Your task to perform on an android device: Play the last video I watched on Youtube Image 0: 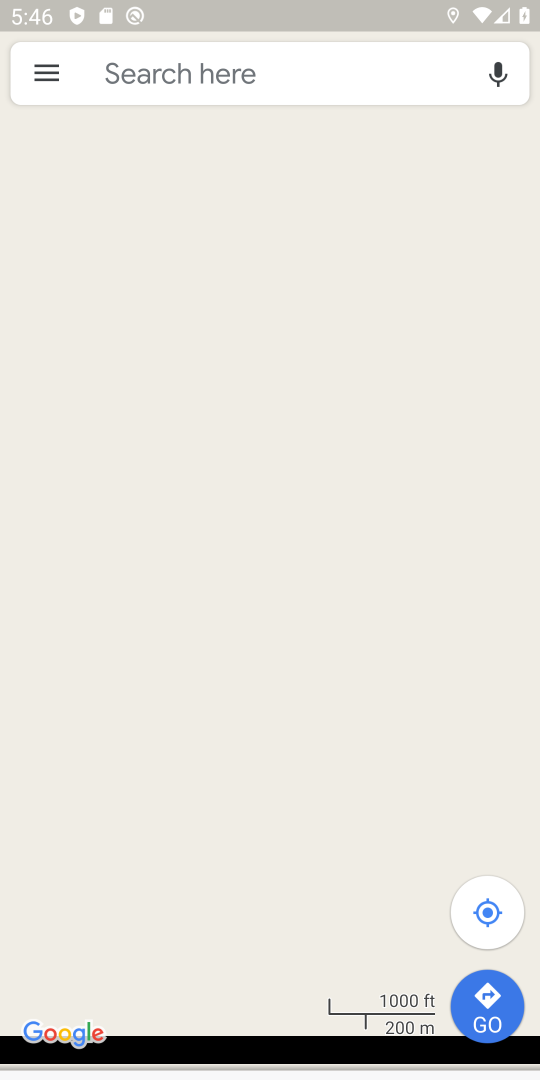
Step 0: press home button
Your task to perform on an android device: Play the last video I watched on Youtube Image 1: 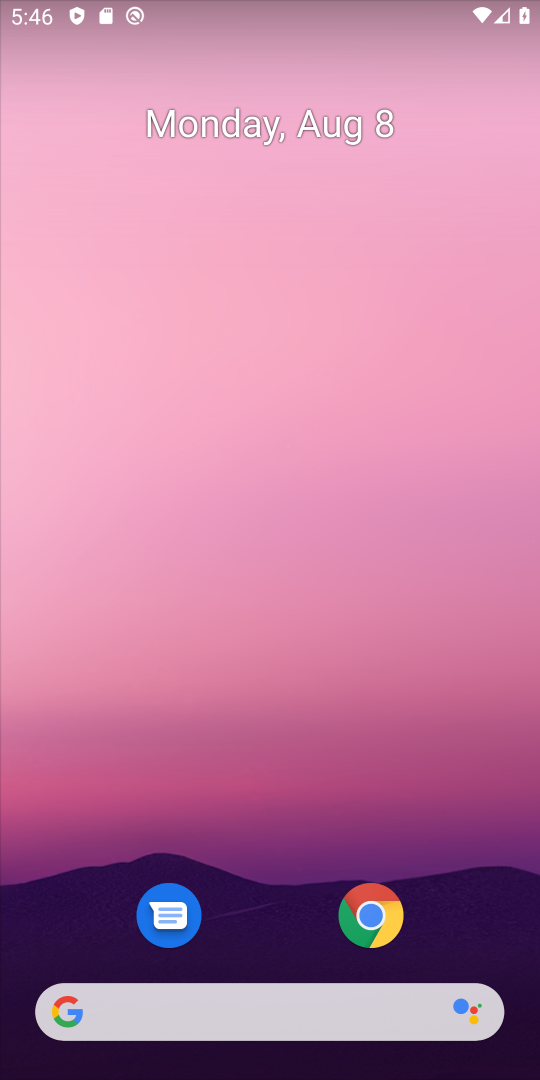
Step 1: drag from (265, 797) to (130, 173)
Your task to perform on an android device: Play the last video I watched on Youtube Image 2: 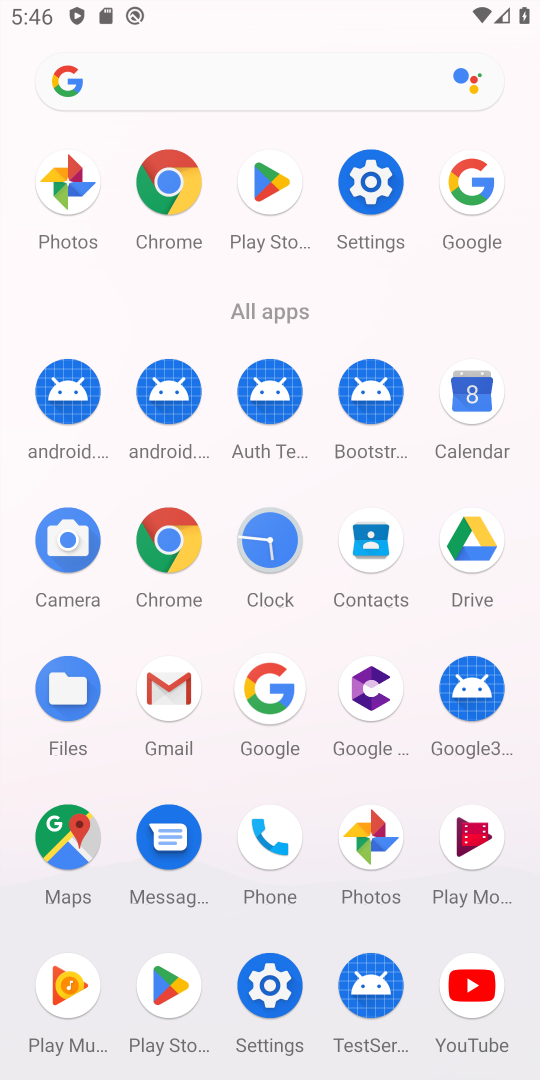
Step 2: click (471, 987)
Your task to perform on an android device: Play the last video I watched on Youtube Image 3: 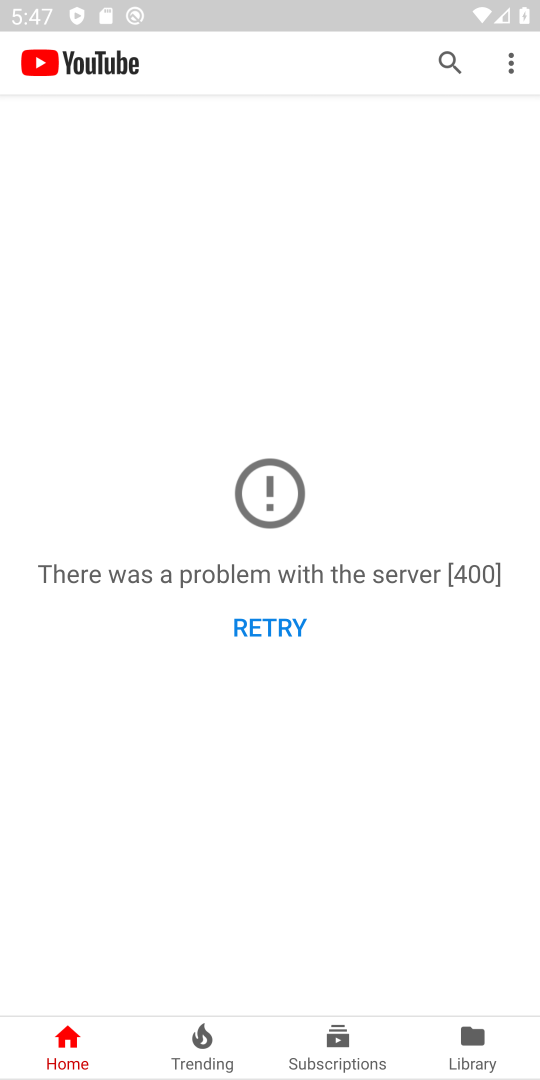
Step 3: click (270, 630)
Your task to perform on an android device: Play the last video I watched on Youtube Image 4: 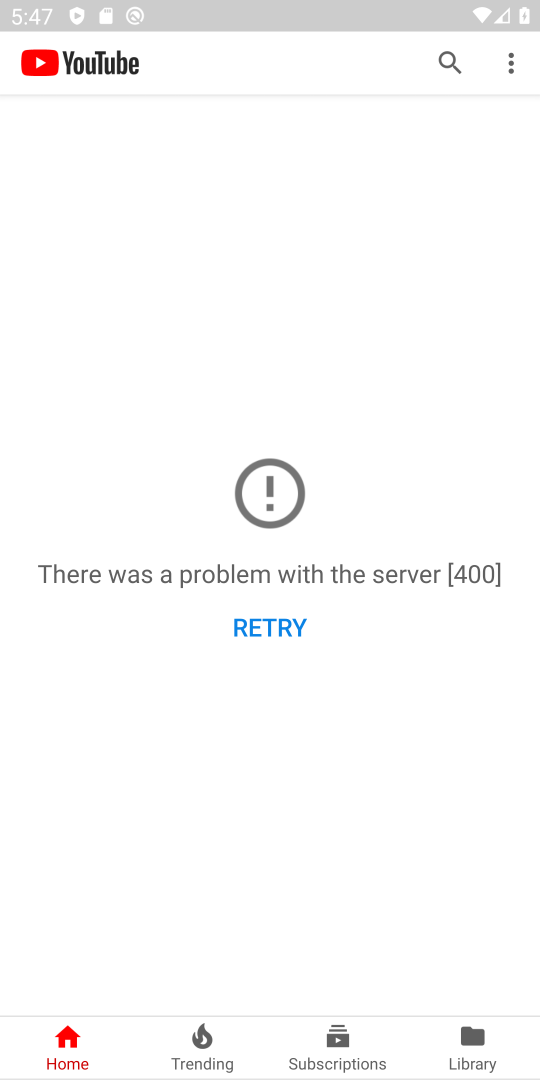
Step 4: click (270, 630)
Your task to perform on an android device: Play the last video I watched on Youtube Image 5: 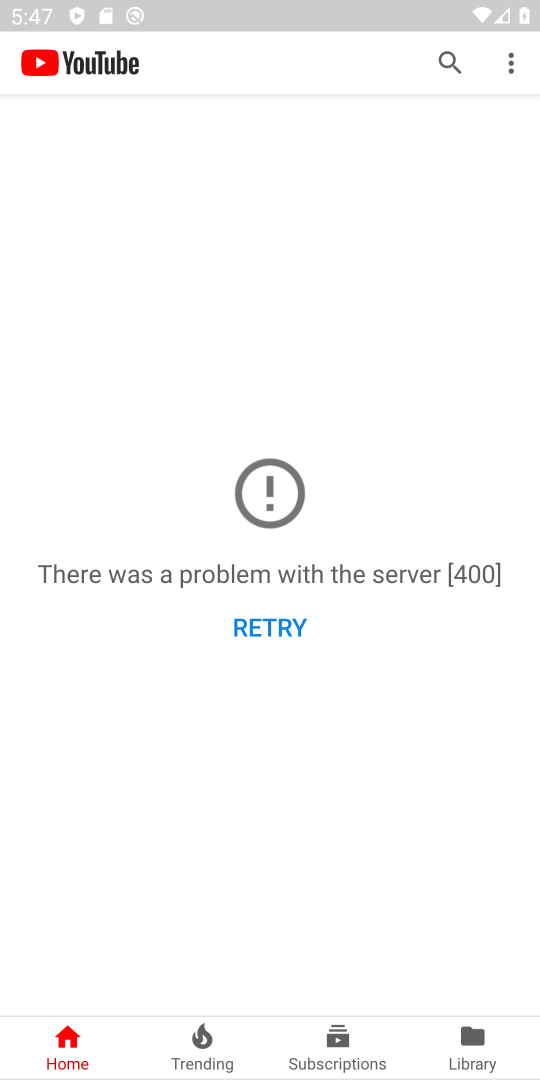
Step 5: click (287, 626)
Your task to perform on an android device: Play the last video I watched on Youtube Image 6: 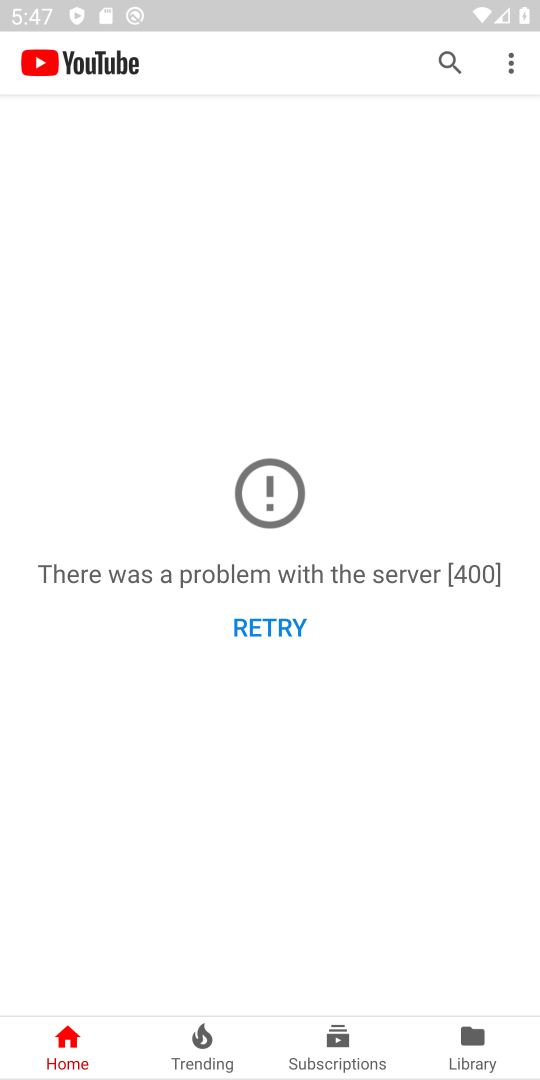
Step 6: click (258, 626)
Your task to perform on an android device: Play the last video I watched on Youtube Image 7: 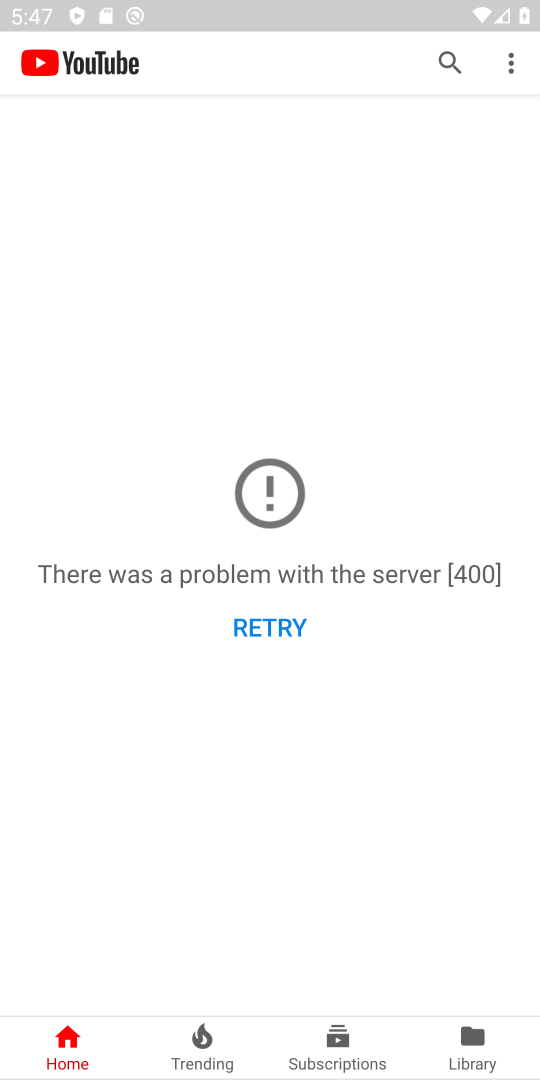
Step 7: click (258, 626)
Your task to perform on an android device: Play the last video I watched on Youtube Image 8: 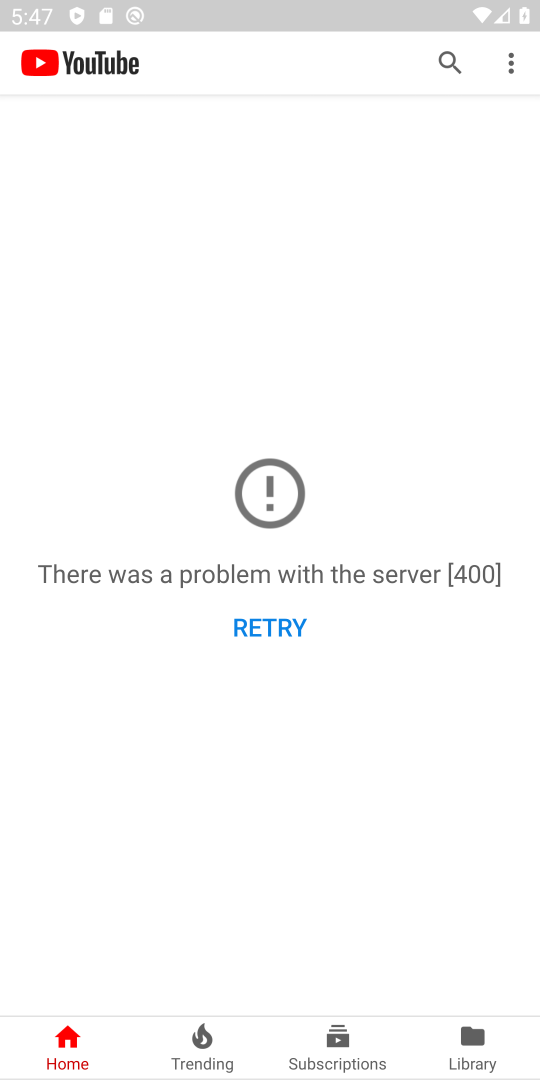
Step 8: click (258, 626)
Your task to perform on an android device: Play the last video I watched on Youtube Image 9: 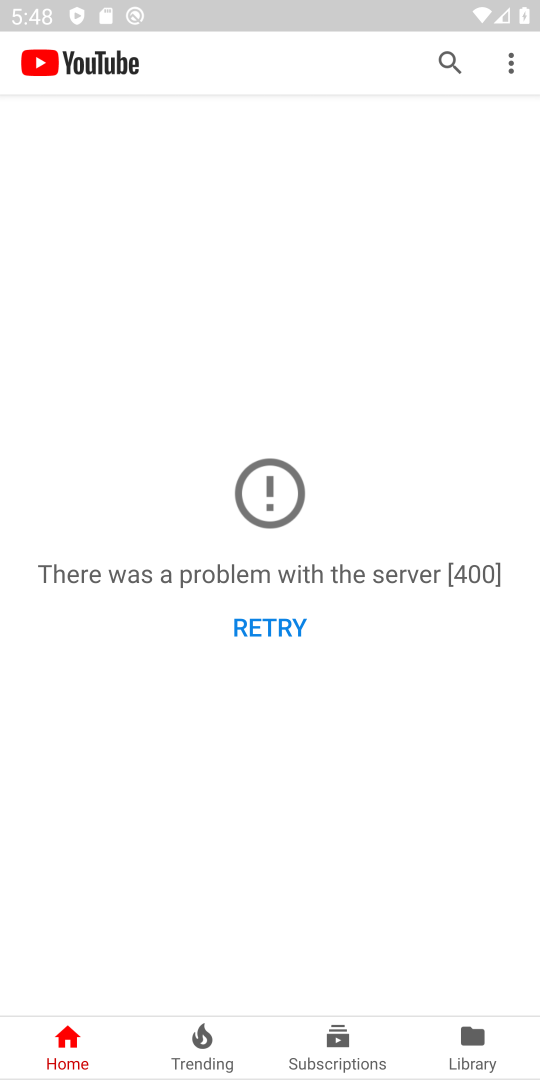
Step 9: task complete